Your task to perform on an android device: Search for the best gaming mouses on Amazon. Image 0: 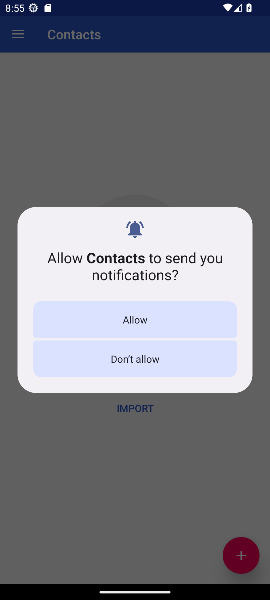
Step 0: press home button
Your task to perform on an android device: Search for the best gaming mouses on Amazon. Image 1: 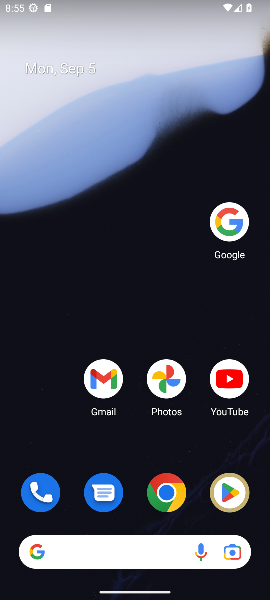
Step 1: click (224, 208)
Your task to perform on an android device: Search for the best gaming mouses on Amazon. Image 2: 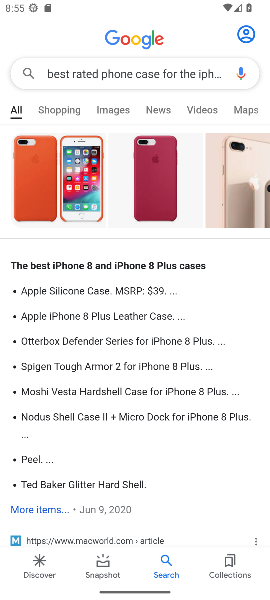
Step 2: click (174, 79)
Your task to perform on an android device: Search for the best gaming mouses on Amazon. Image 3: 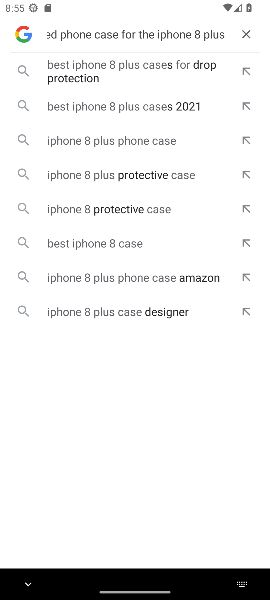
Step 3: click (245, 26)
Your task to perform on an android device: Search for the best gaming mouses on Amazon. Image 4: 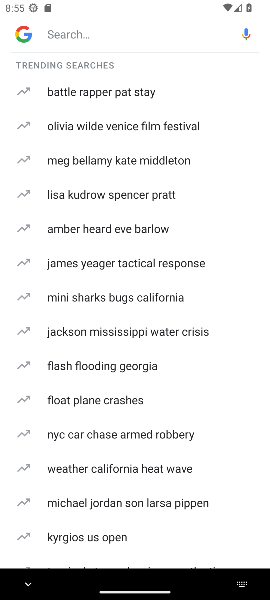
Step 4: click (121, 31)
Your task to perform on an android device: Search for the best gaming mouses on Amazon. Image 5: 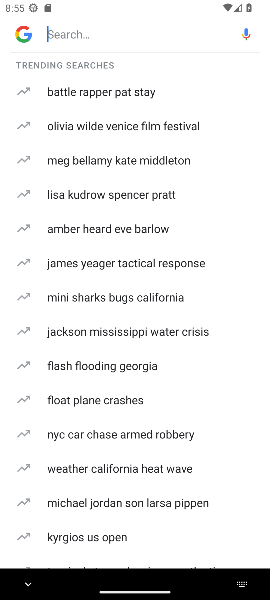
Step 5: type "the best gaming mouses on Amazon "
Your task to perform on an android device: Search for the best gaming mouses on Amazon. Image 6: 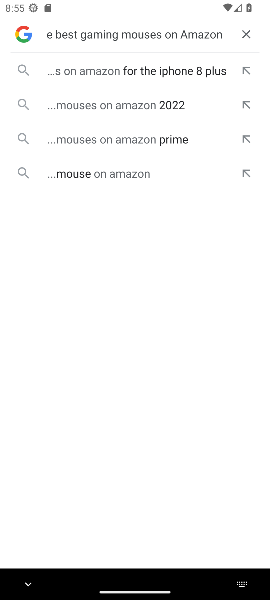
Step 6: click (115, 112)
Your task to perform on an android device: Search for the best gaming mouses on Amazon. Image 7: 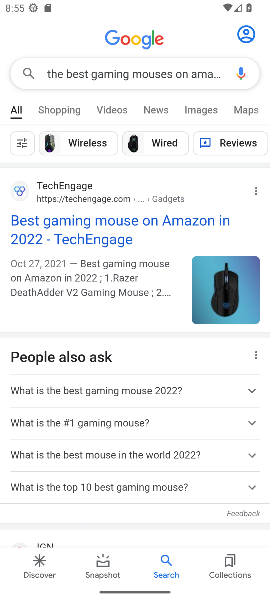
Step 7: click (77, 243)
Your task to perform on an android device: Search for the best gaming mouses on Amazon. Image 8: 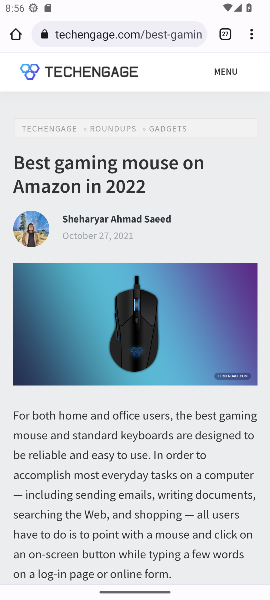
Step 8: task complete